Your task to perform on an android device: Open maps Image 0: 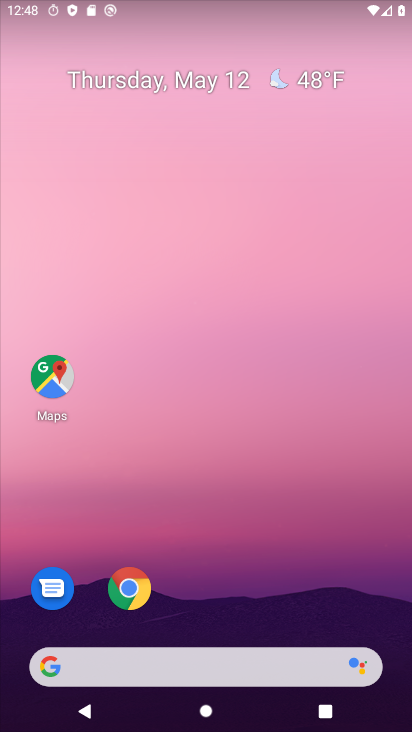
Step 0: click (53, 379)
Your task to perform on an android device: Open maps Image 1: 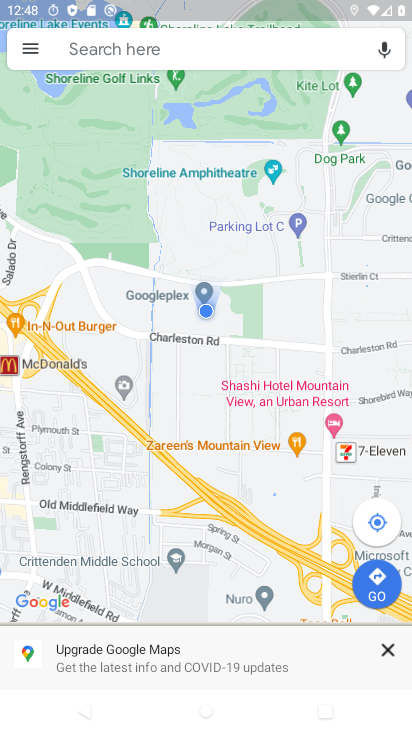
Step 1: task complete